Your task to perform on an android device: turn off smart reply in the gmail app Image 0: 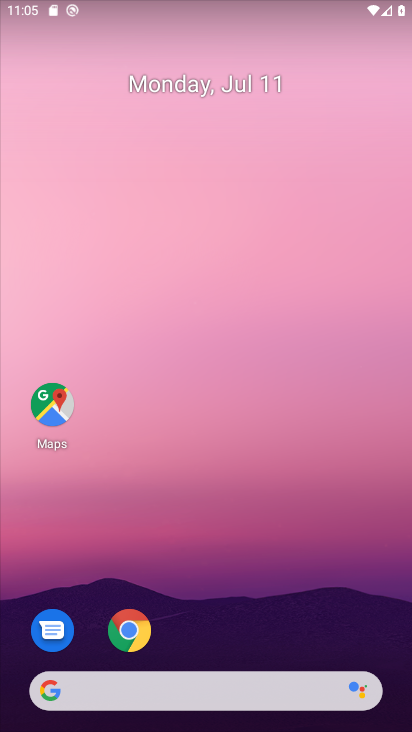
Step 0: drag from (245, 632) to (261, 114)
Your task to perform on an android device: turn off smart reply in the gmail app Image 1: 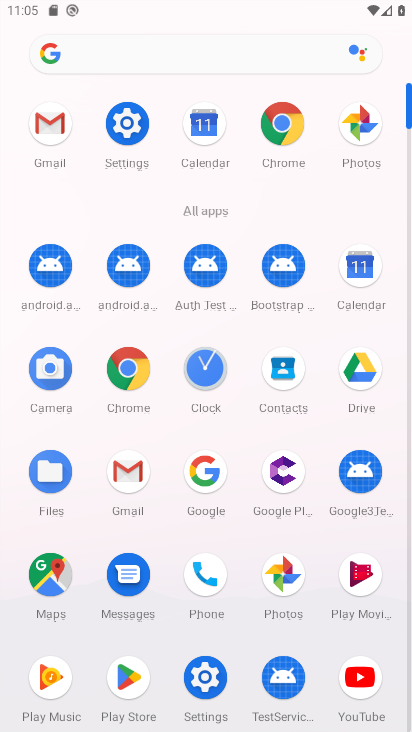
Step 1: click (130, 482)
Your task to perform on an android device: turn off smart reply in the gmail app Image 2: 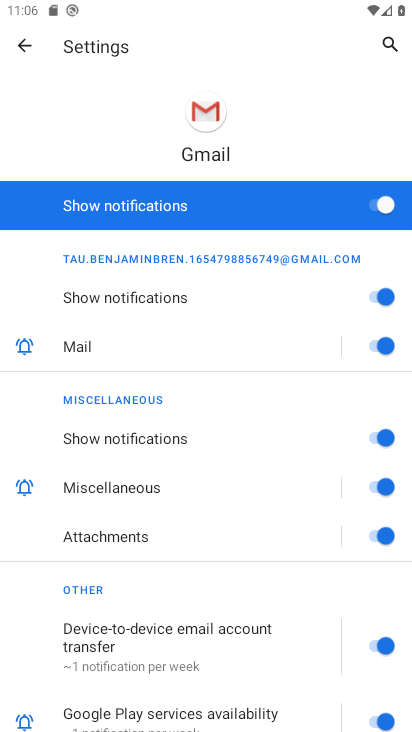
Step 2: click (34, 41)
Your task to perform on an android device: turn off smart reply in the gmail app Image 3: 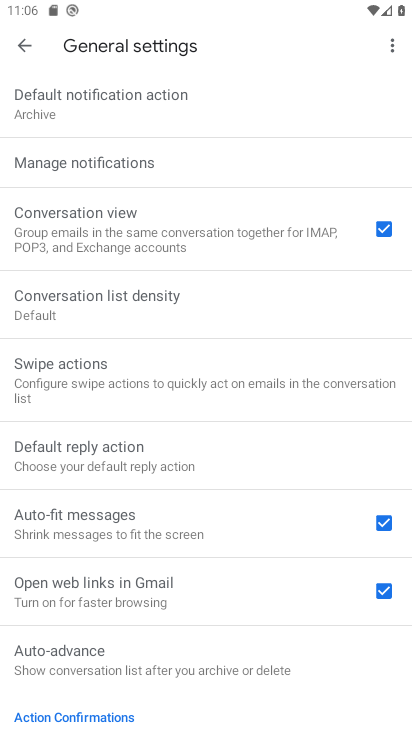
Step 3: click (30, 40)
Your task to perform on an android device: turn off smart reply in the gmail app Image 4: 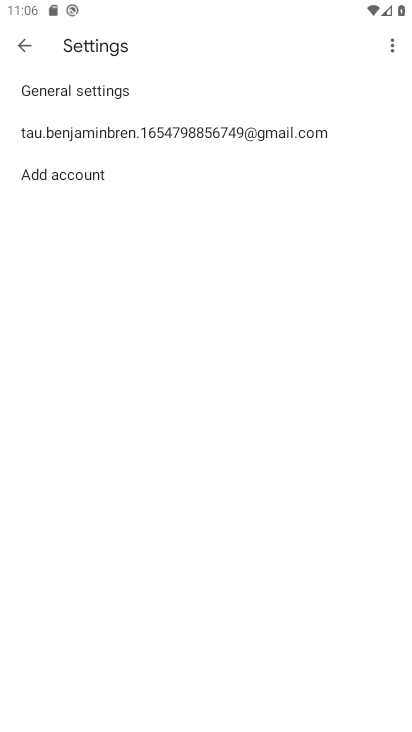
Step 4: click (56, 130)
Your task to perform on an android device: turn off smart reply in the gmail app Image 5: 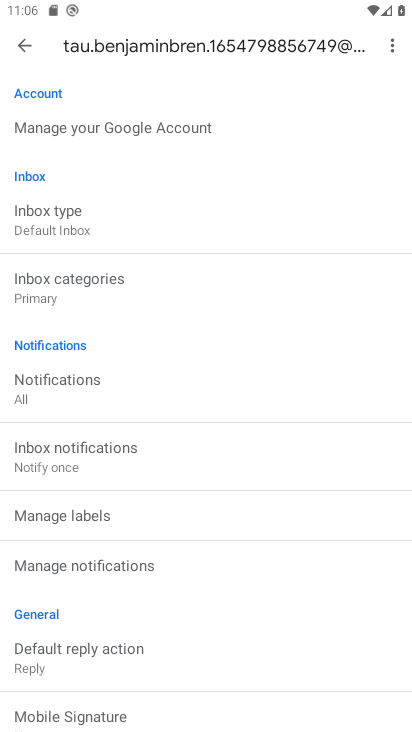
Step 5: drag from (79, 539) to (142, 212)
Your task to perform on an android device: turn off smart reply in the gmail app Image 6: 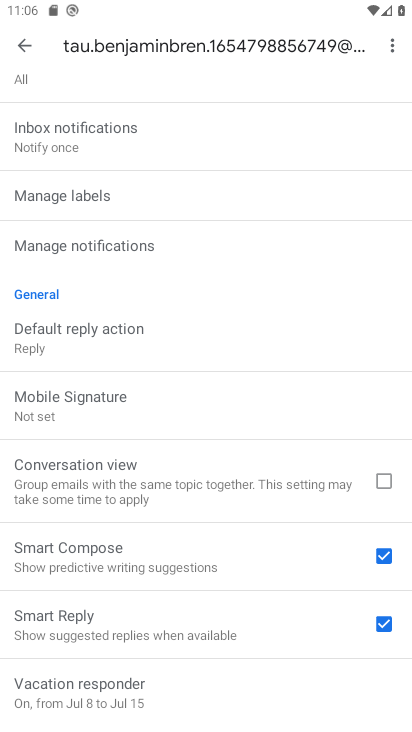
Step 6: click (243, 618)
Your task to perform on an android device: turn off smart reply in the gmail app Image 7: 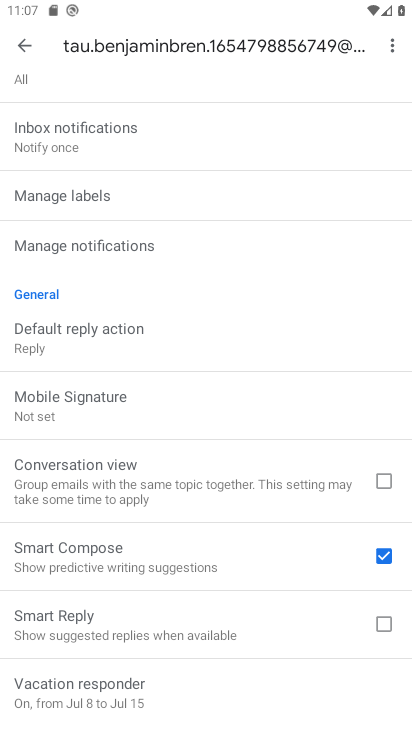
Step 7: task complete